Your task to perform on an android device: change alarm snooze length Image 0: 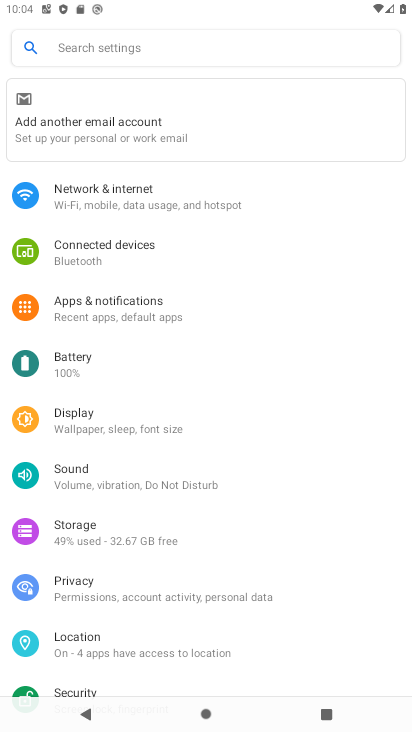
Step 0: press home button
Your task to perform on an android device: change alarm snooze length Image 1: 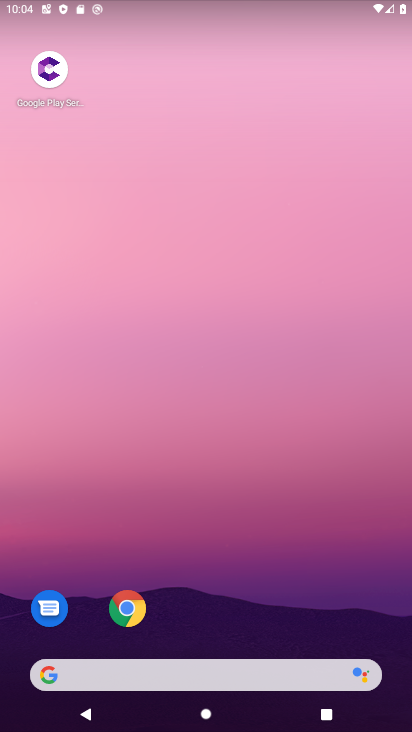
Step 1: drag from (282, 640) to (263, 4)
Your task to perform on an android device: change alarm snooze length Image 2: 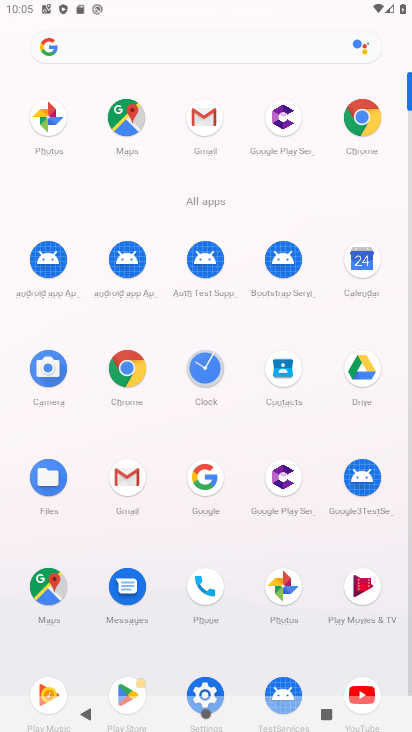
Step 2: click (198, 373)
Your task to perform on an android device: change alarm snooze length Image 3: 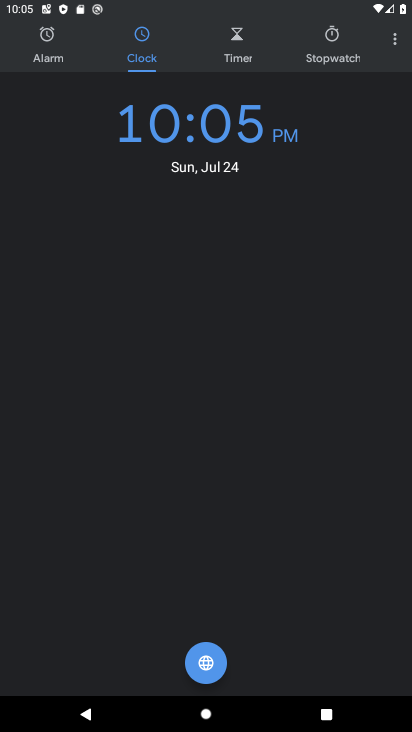
Step 3: click (395, 40)
Your task to perform on an android device: change alarm snooze length Image 4: 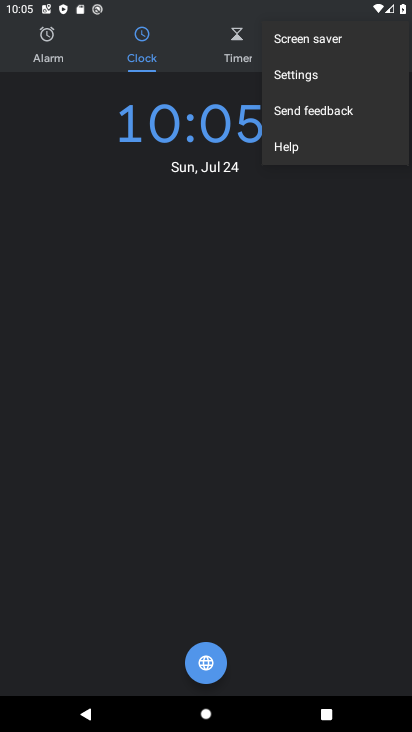
Step 4: click (317, 79)
Your task to perform on an android device: change alarm snooze length Image 5: 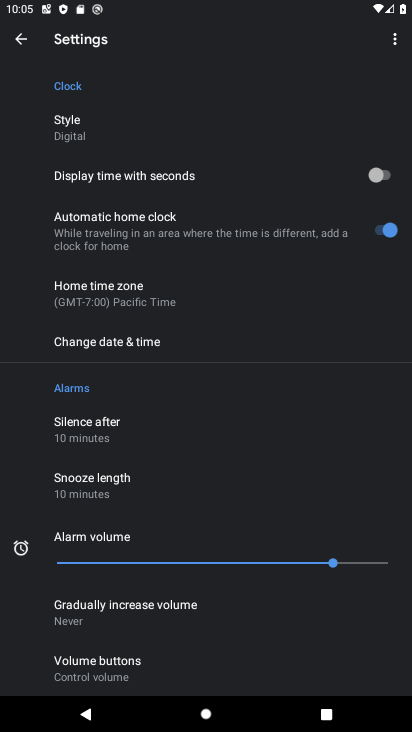
Step 5: click (111, 478)
Your task to perform on an android device: change alarm snooze length Image 6: 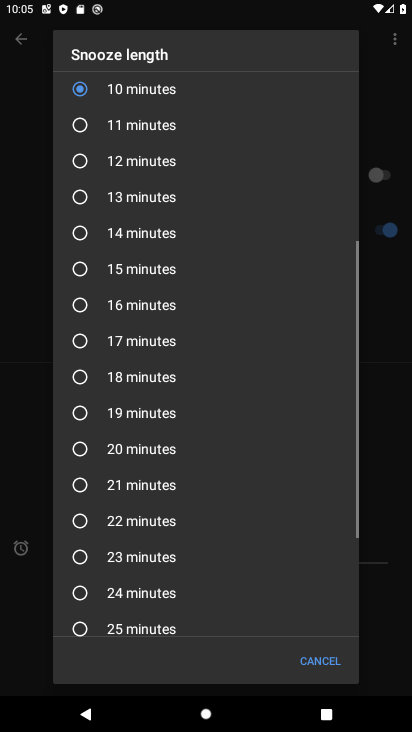
Step 6: click (122, 433)
Your task to perform on an android device: change alarm snooze length Image 7: 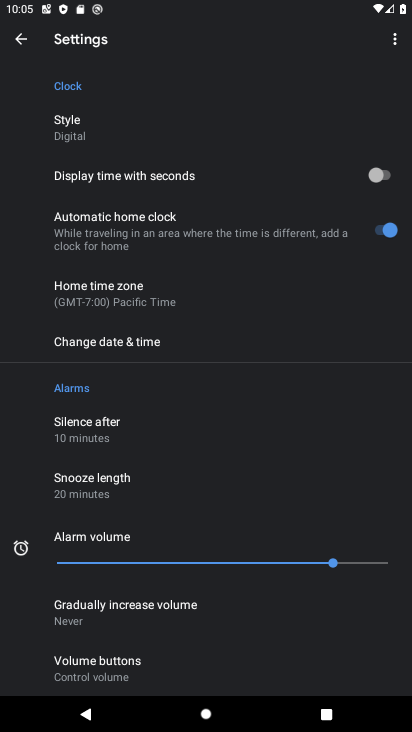
Step 7: task complete